Your task to perform on an android device: open app "VLC for Android" Image 0: 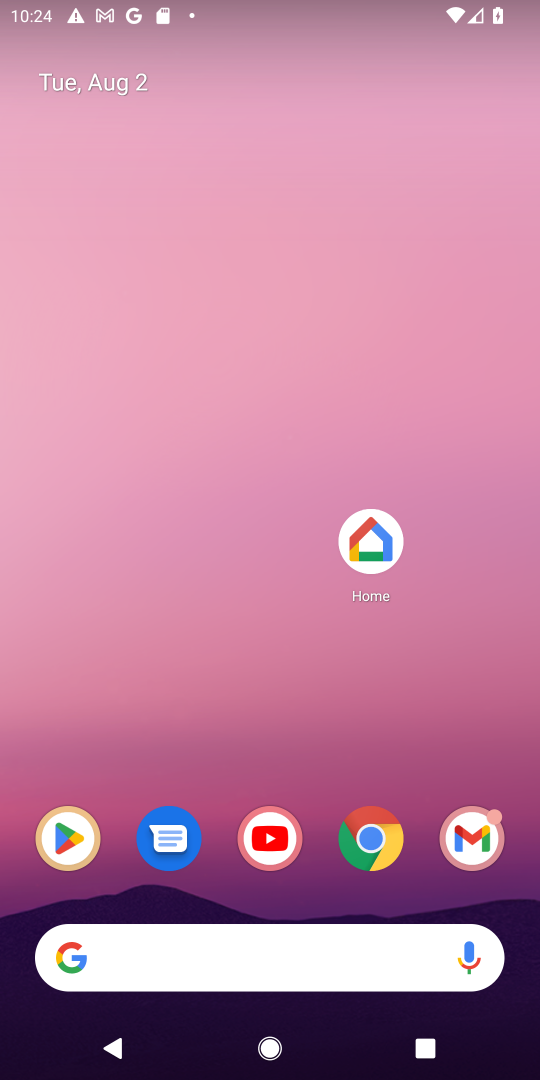
Step 0: press home button
Your task to perform on an android device: open app "VLC for Android" Image 1: 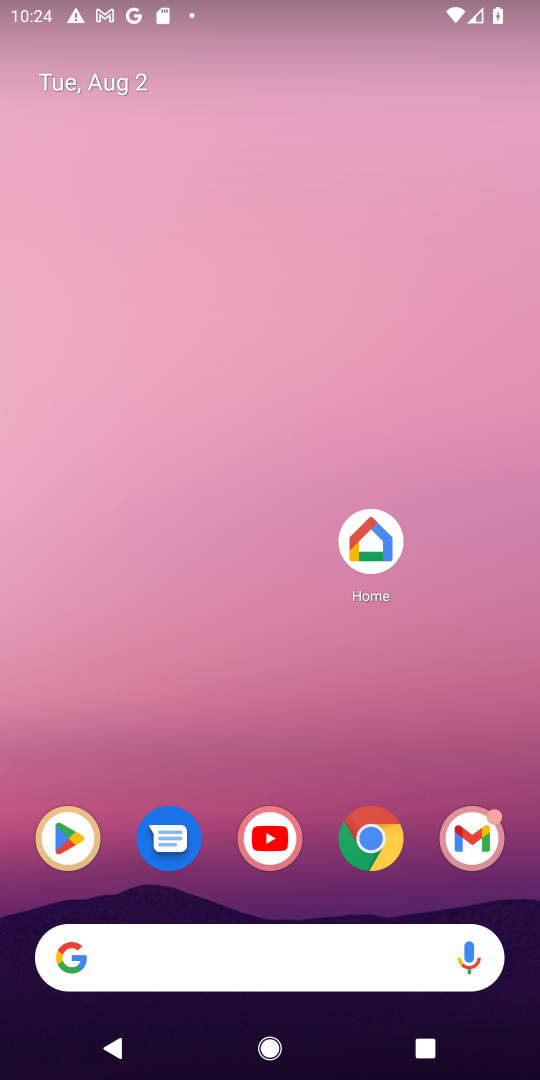
Step 1: drag from (213, 802) to (275, 177)
Your task to perform on an android device: open app "VLC for Android" Image 2: 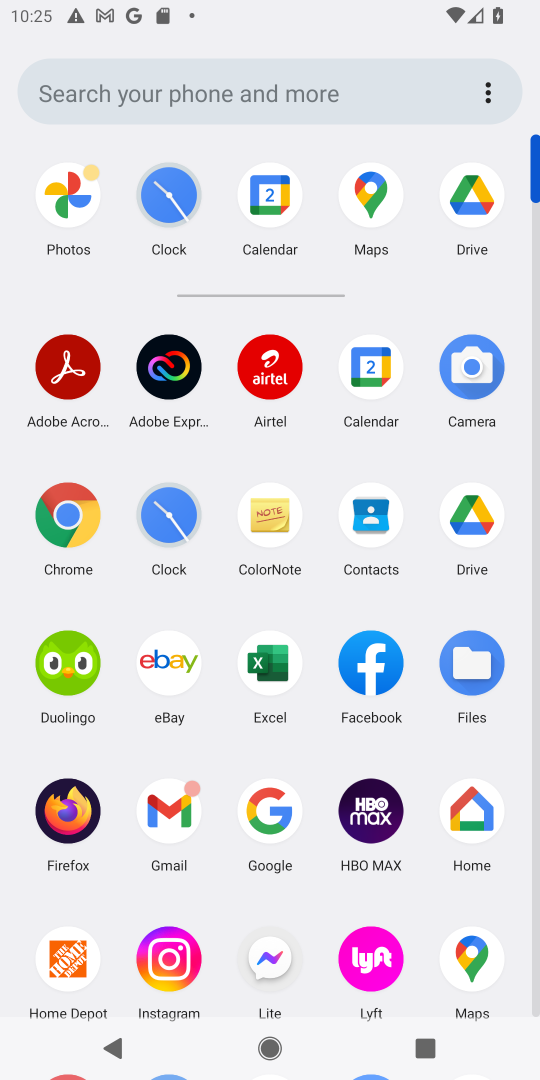
Step 2: drag from (306, 902) to (324, 431)
Your task to perform on an android device: open app "VLC for Android" Image 3: 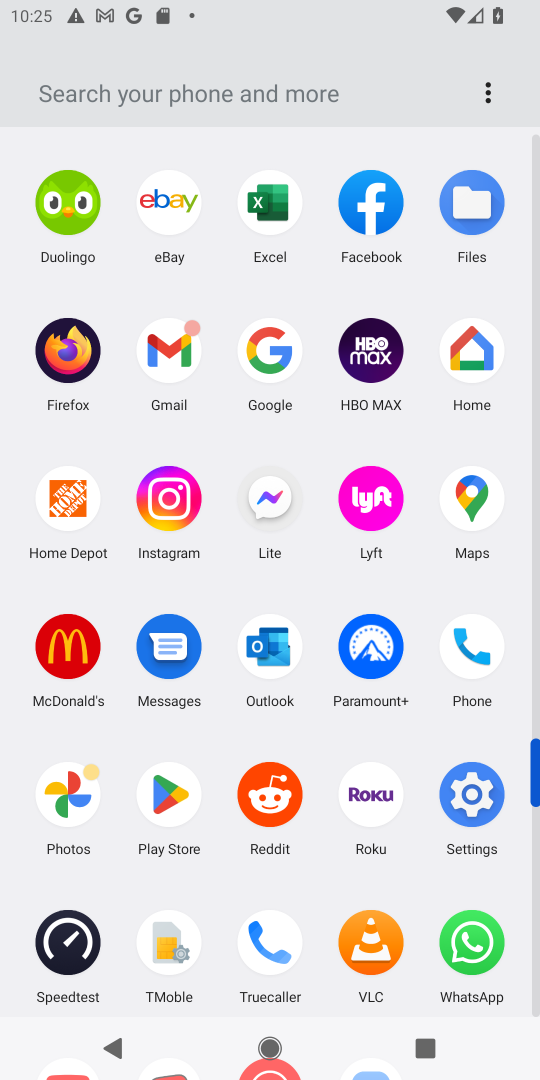
Step 3: drag from (215, 874) to (220, 608)
Your task to perform on an android device: open app "VLC for Android" Image 4: 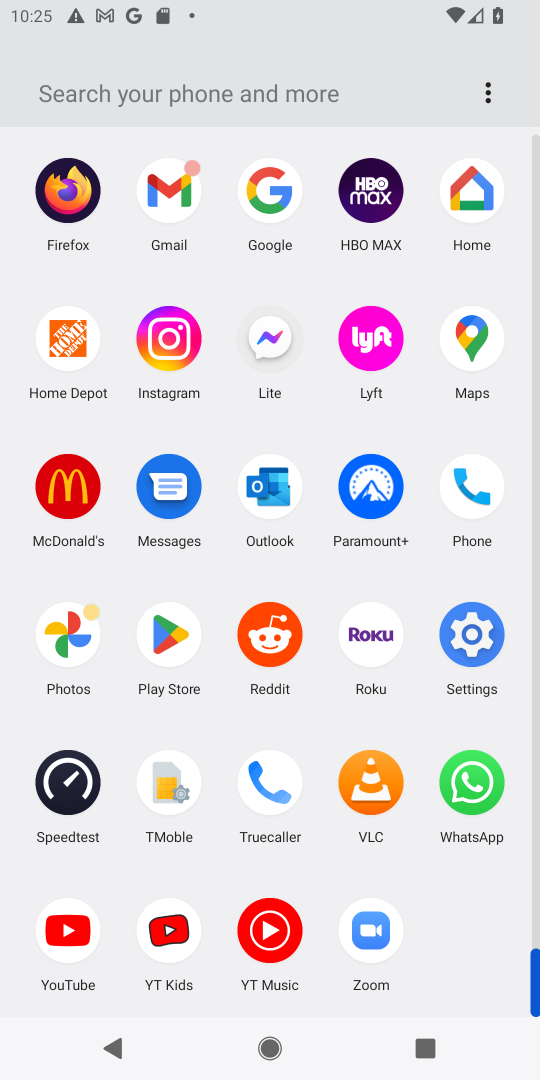
Step 4: click (161, 642)
Your task to perform on an android device: open app "VLC for Android" Image 5: 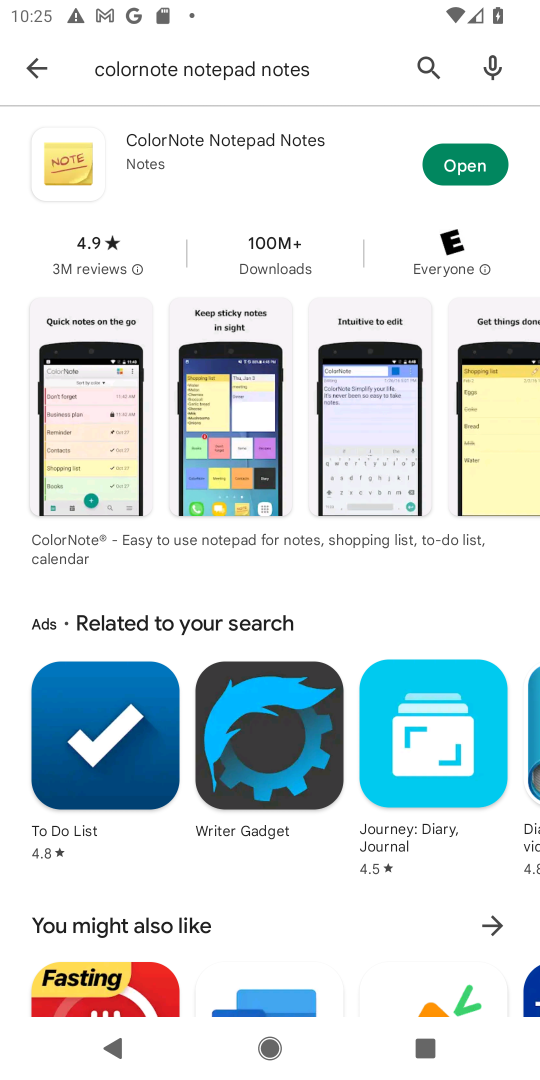
Step 5: click (424, 63)
Your task to perform on an android device: open app "VLC for Android" Image 6: 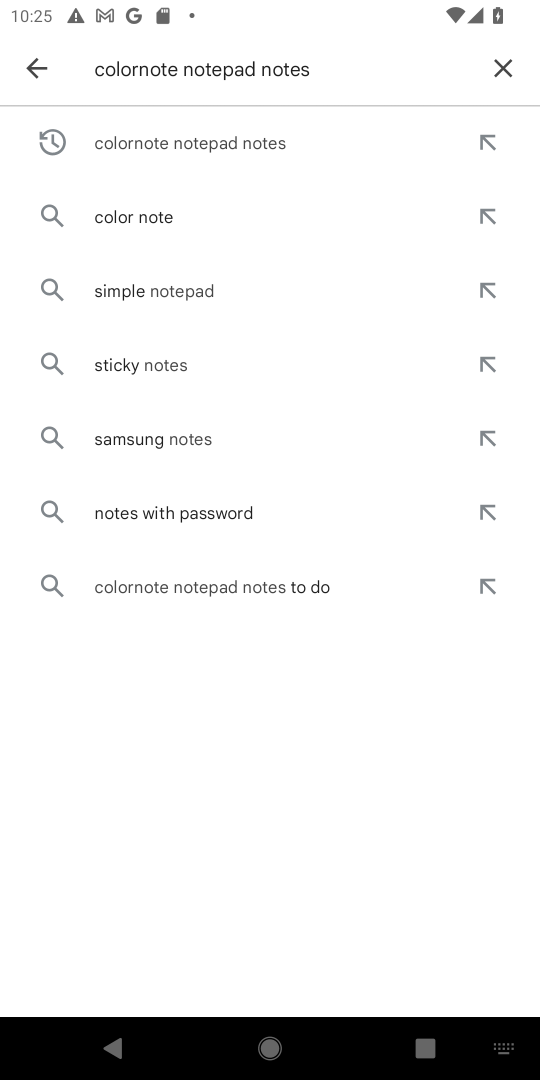
Step 6: click (501, 73)
Your task to perform on an android device: open app "VLC for Android" Image 7: 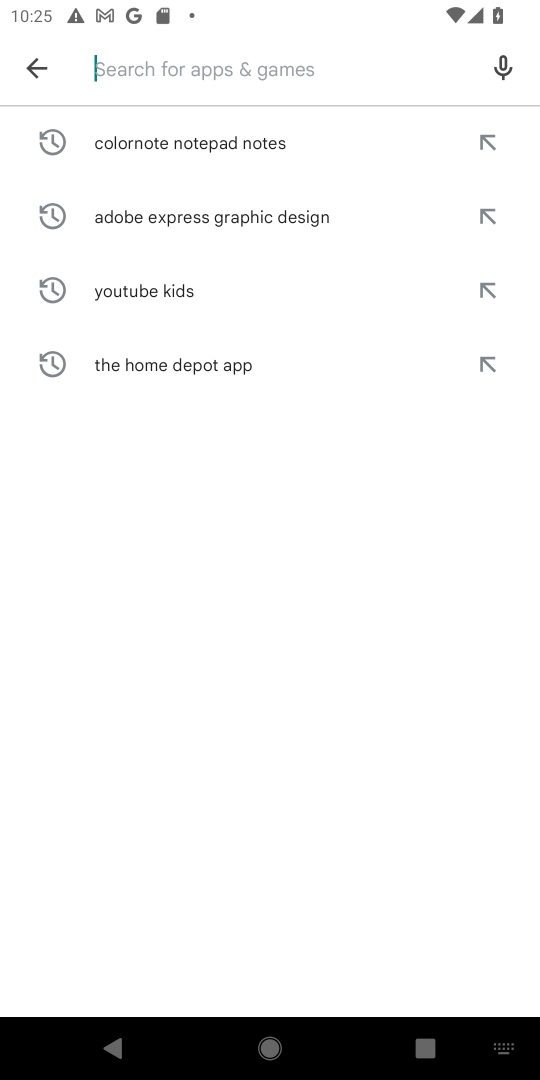
Step 7: type "vlc for android "
Your task to perform on an android device: open app "VLC for Android" Image 8: 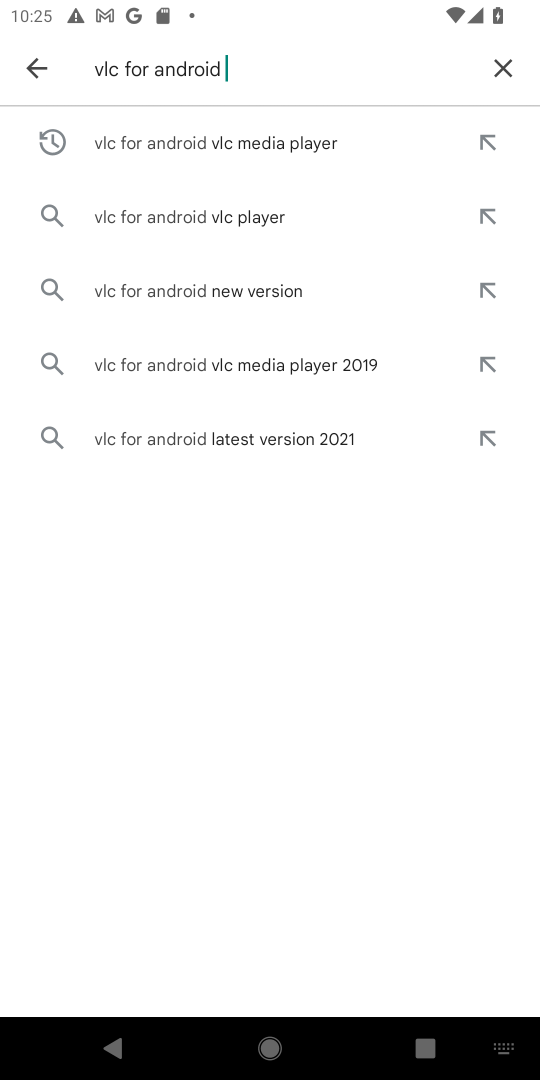
Step 8: click (323, 144)
Your task to perform on an android device: open app "VLC for Android" Image 9: 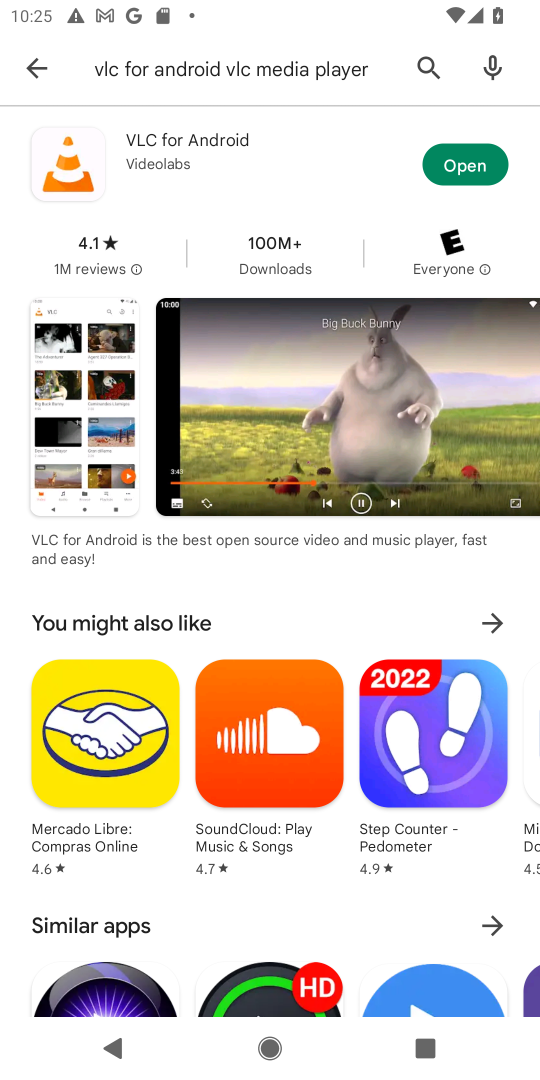
Step 9: click (487, 175)
Your task to perform on an android device: open app "VLC for Android" Image 10: 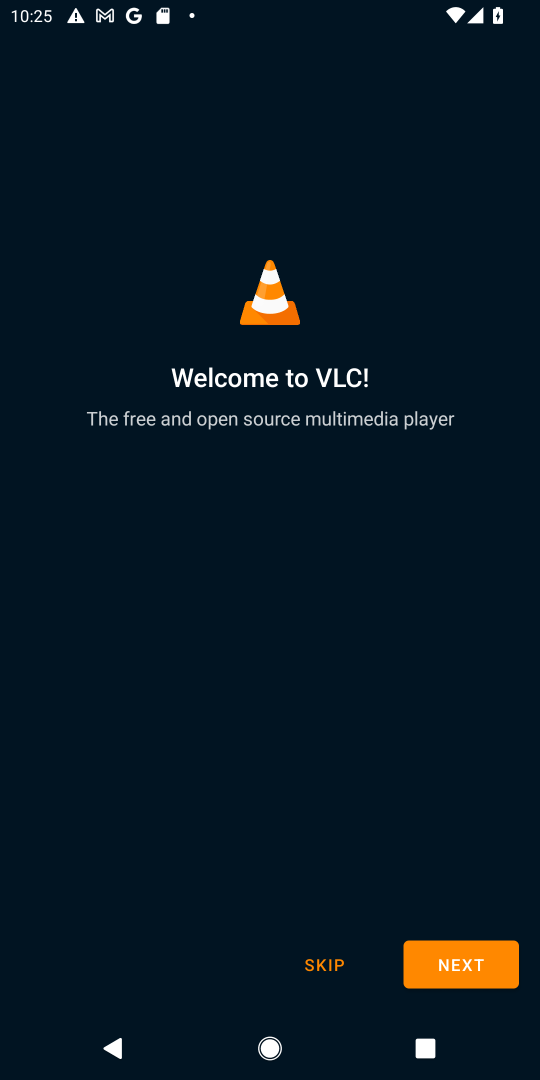
Step 10: task complete